Your task to perform on an android device: stop showing notifications on the lock screen Image 0: 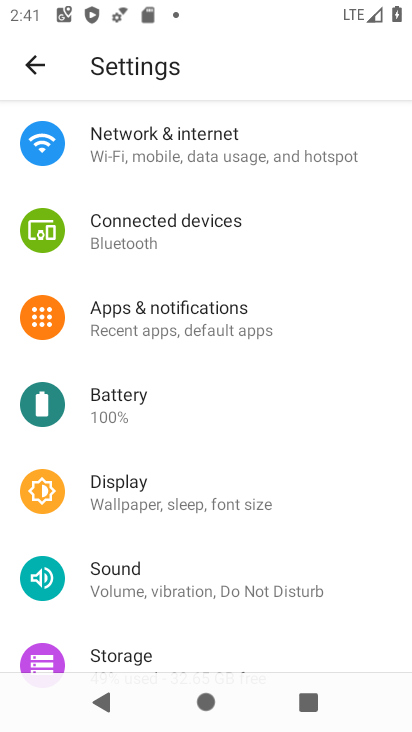
Step 0: press home button
Your task to perform on an android device: stop showing notifications on the lock screen Image 1: 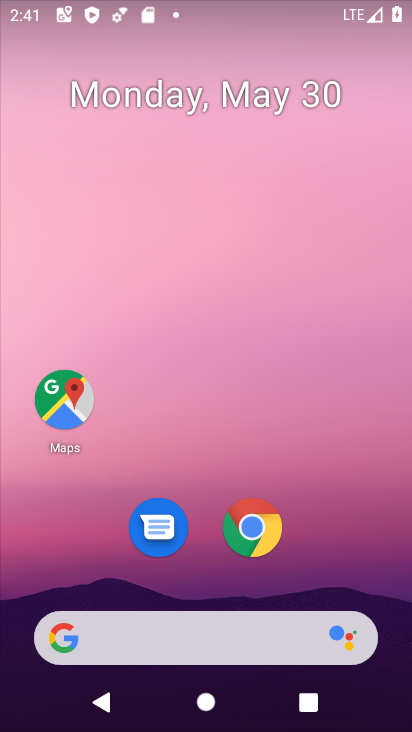
Step 1: drag from (303, 544) to (340, 62)
Your task to perform on an android device: stop showing notifications on the lock screen Image 2: 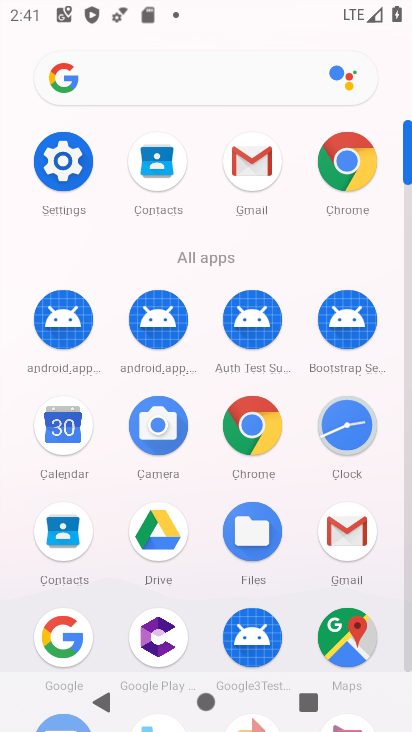
Step 2: click (72, 162)
Your task to perform on an android device: stop showing notifications on the lock screen Image 3: 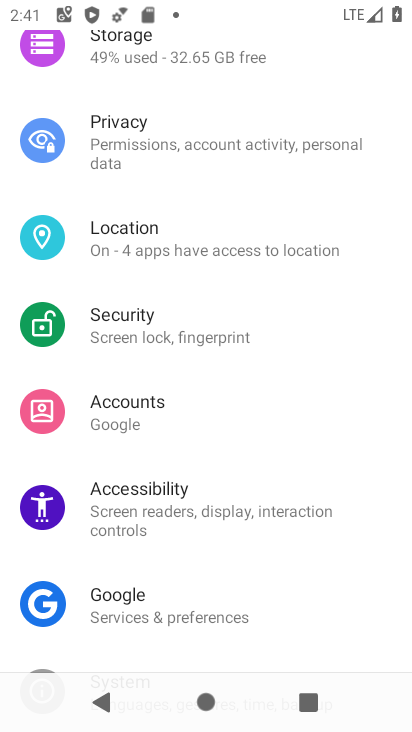
Step 3: drag from (233, 113) to (194, 635)
Your task to perform on an android device: stop showing notifications on the lock screen Image 4: 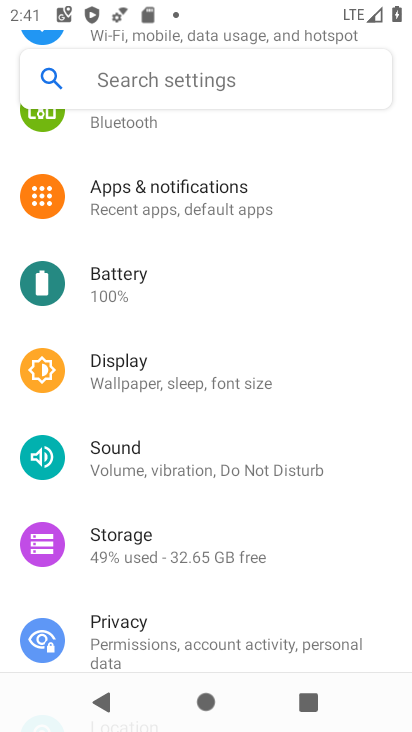
Step 4: click (148, 188)
Your task to perform on an android device: stop showing notifications on the lock screen Image 5: 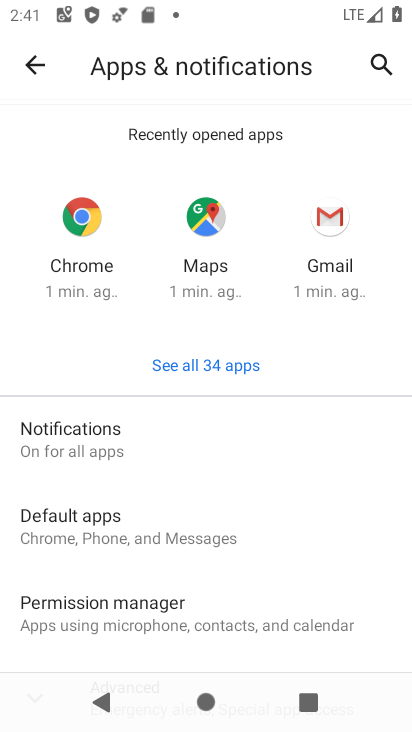
Step 5: click (85, 446)
Your task to perform on an android device: stop showing notifications on the lock screen Image 6: 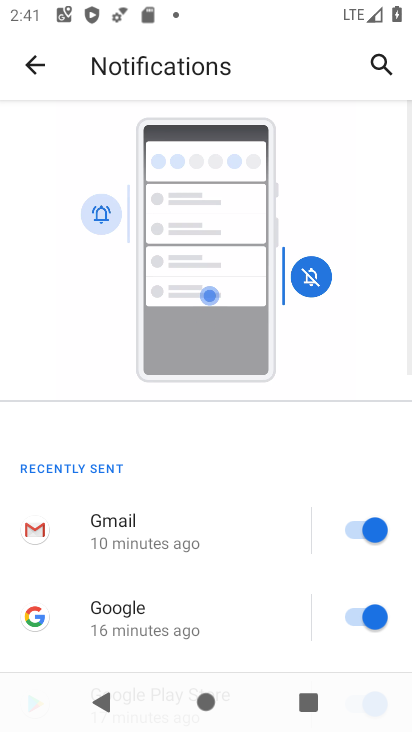
Step 6: drag from (259, 605) to (307, 153)
Your task to perform on an android device: stop showing notifications on the lock screen Image 7: 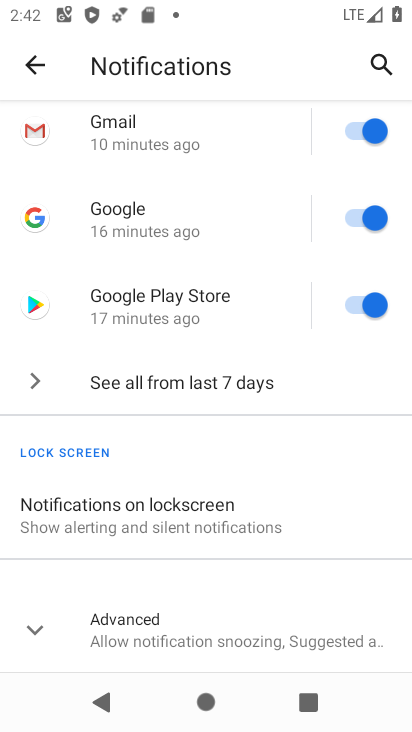
Step 7: click (207, 509)
Your task to perform on an android device: stop showing notifications on the lock screen Image 8: 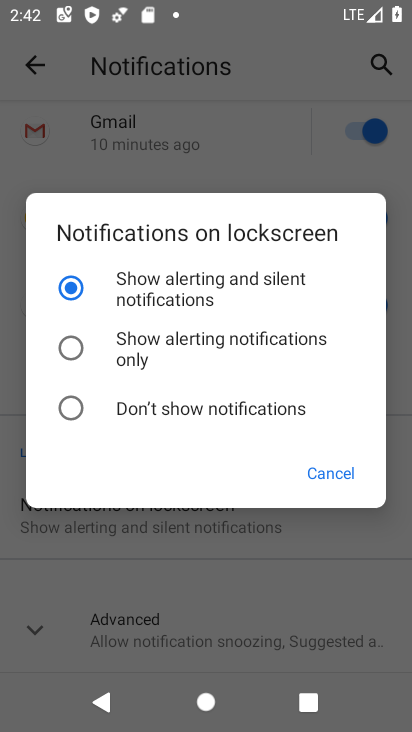
Step 8: click (162, 408)
Your task to perform on an android device: stop showing notifications on the lock screen Image 9: 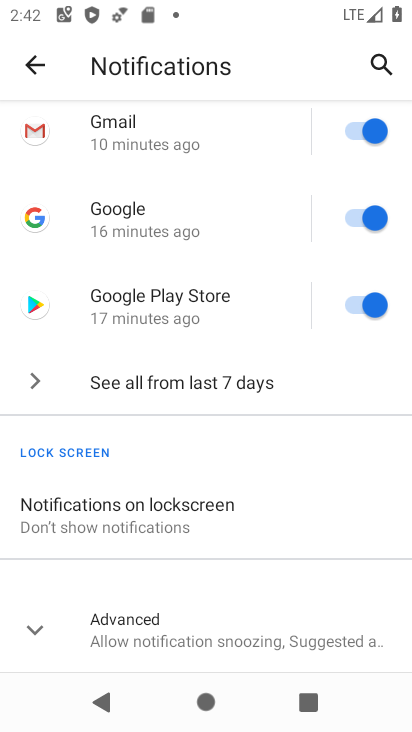
Step 9: task complete